Your task to perform on an android device: View the shopping cart on ebay.com. Search for jbl flip 4 on ebay.com, select the first entry, and add it to the cart. Image 0: 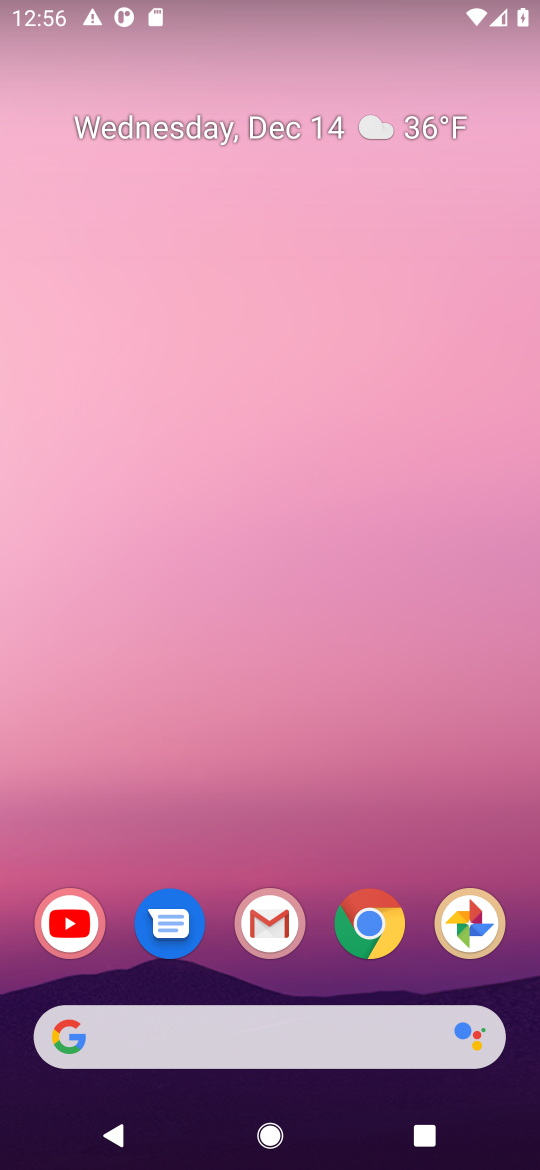
Step 0: click (346, 917)
Your task to perform on an android device: View the shopping cart on ebay.com. Search for jbl flip 4 on ebay.com, select the first entry, and add it to the cart. Image 1: 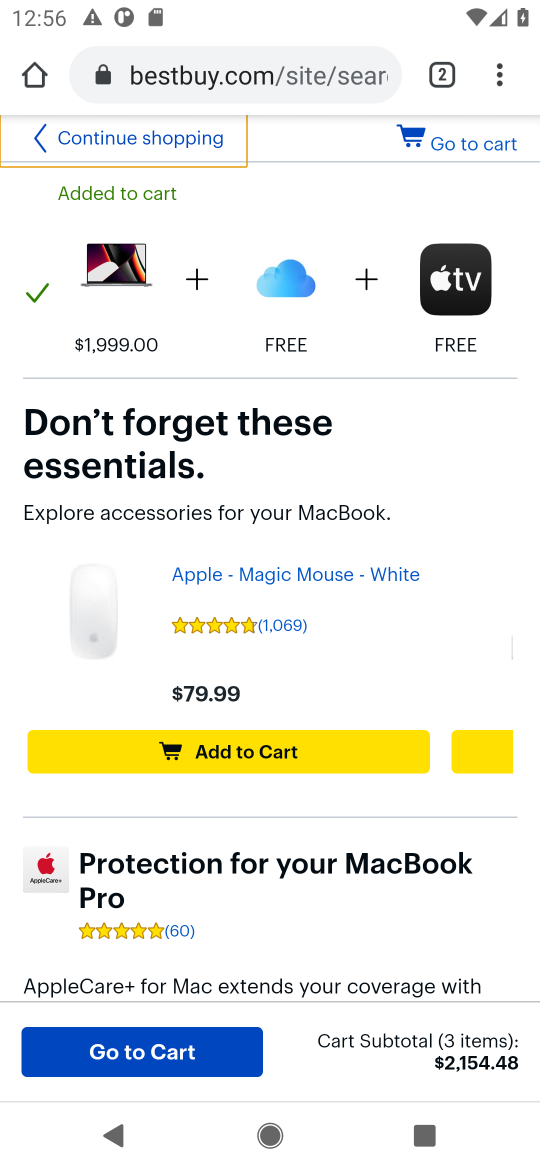
Step 1: click (198, 88)
Your task to perform on an android device: View the shopping cart on ebay.com. Search for jbl flip 4 on ebay.com, select the first entry, and add it to the cart. Image 2: 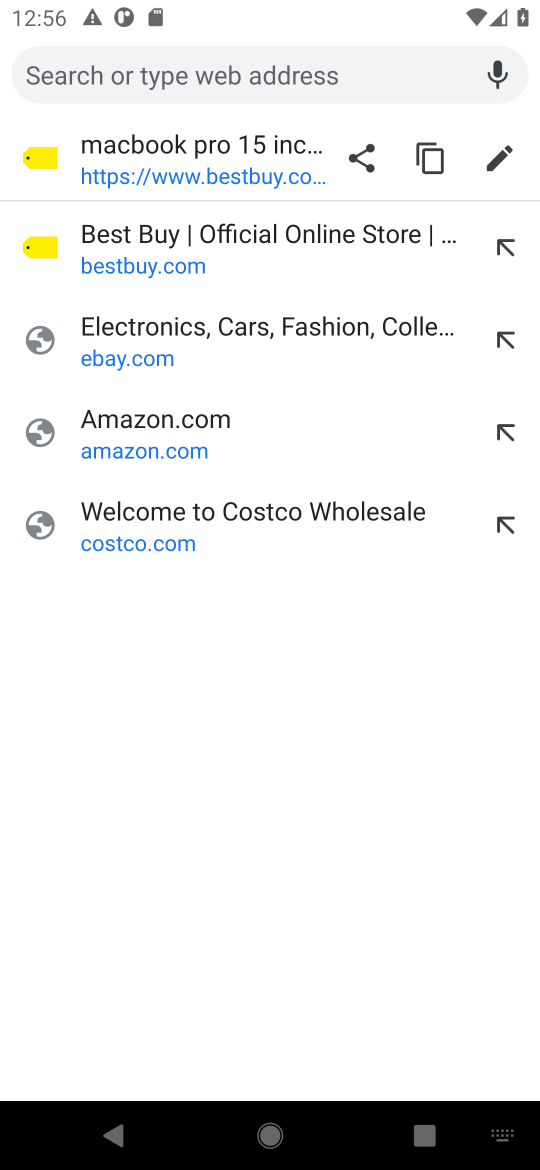
Step 2: click (128, 346)
Your task to perform on an android device: View the shopping cart on ebay.com. Search for jbl flip 4 on ebay.com, select the first entry, and add it to the cart. Image 3: 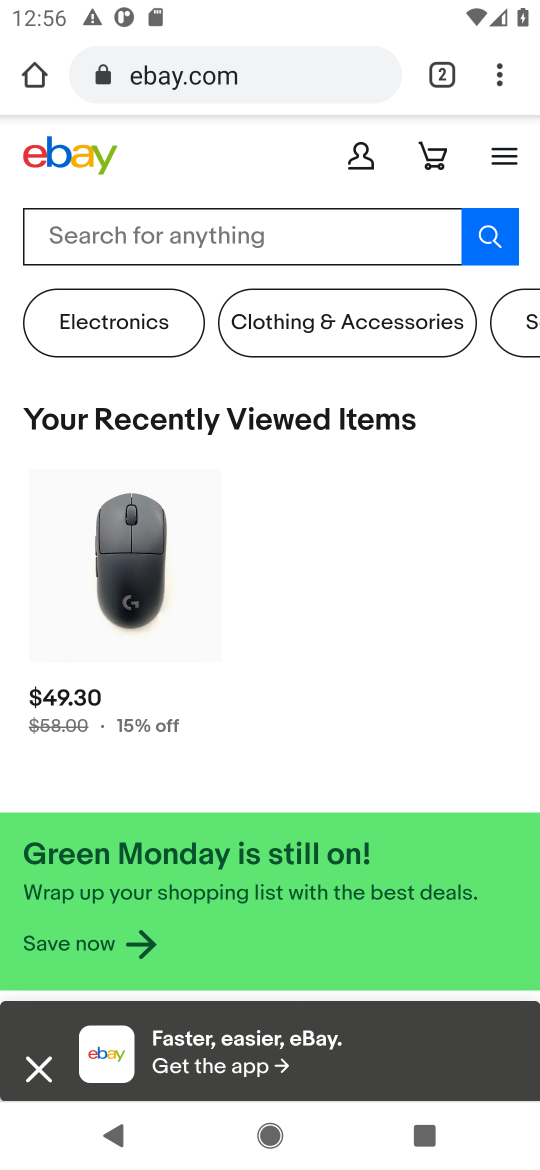
Step 3: click (167, 241)
Your task to perform on an android device: View the shopping cart on ebay.com. Search for jbl flip 4 on ebay.com, select the first entry, and add it to the cart. Image 4: 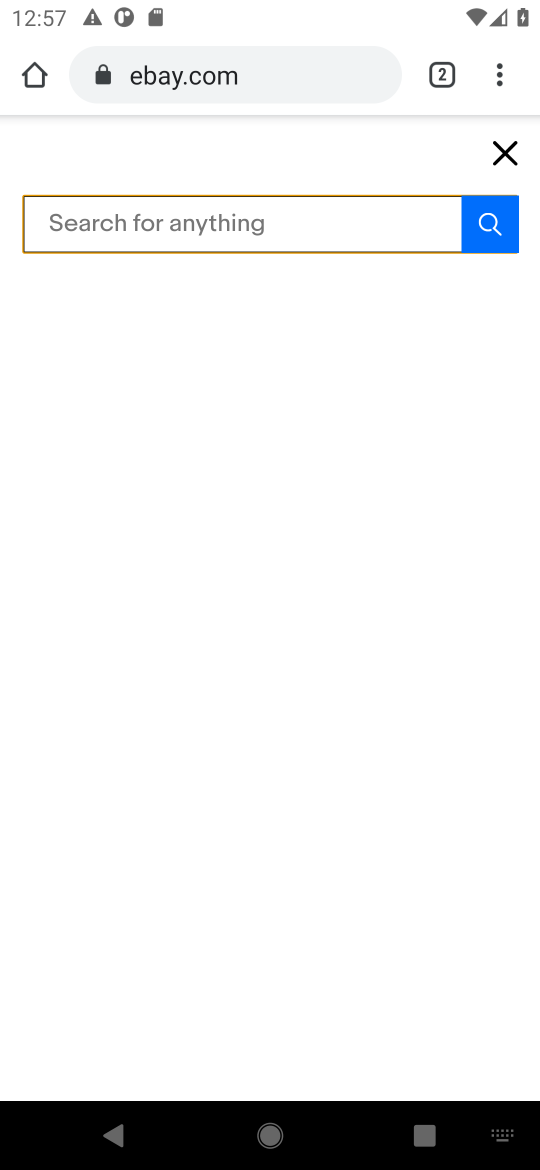
Step 4: type "jbl flip 4"
Your task to perform on an android device: View the shopping cart on ebay.com. Search for jbl flip 4 on ebay.com, select the first entry, and add it to the cart. Image 5: 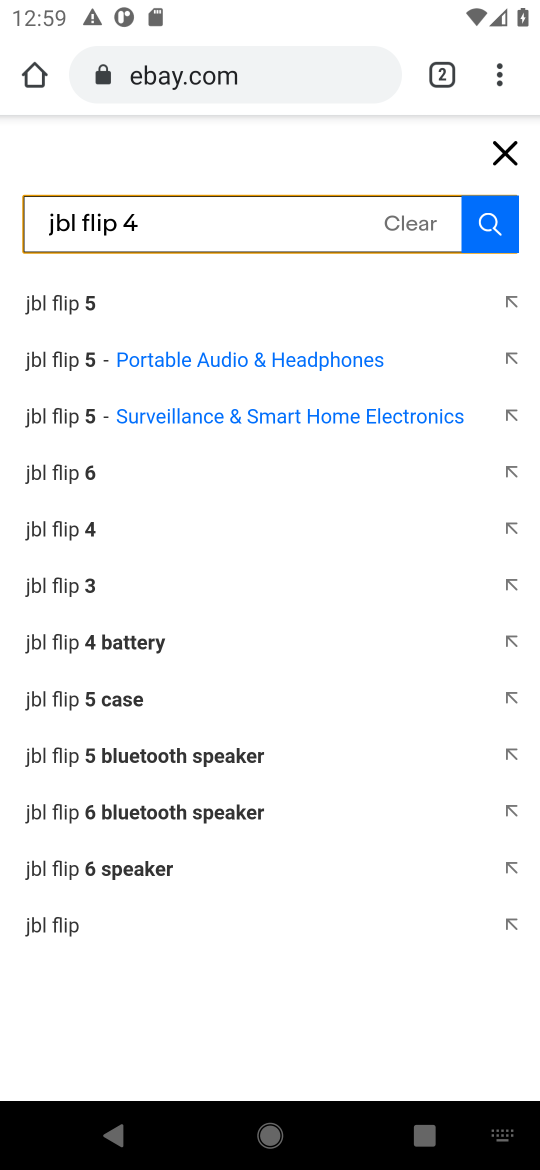
Step 5: click (474, 239)
Your task to perform on an android device: View the shopping cart on ebay.com. Search for jbl flip 4 on ebay.com, select the first entry, and add it to the cart. Image 6: 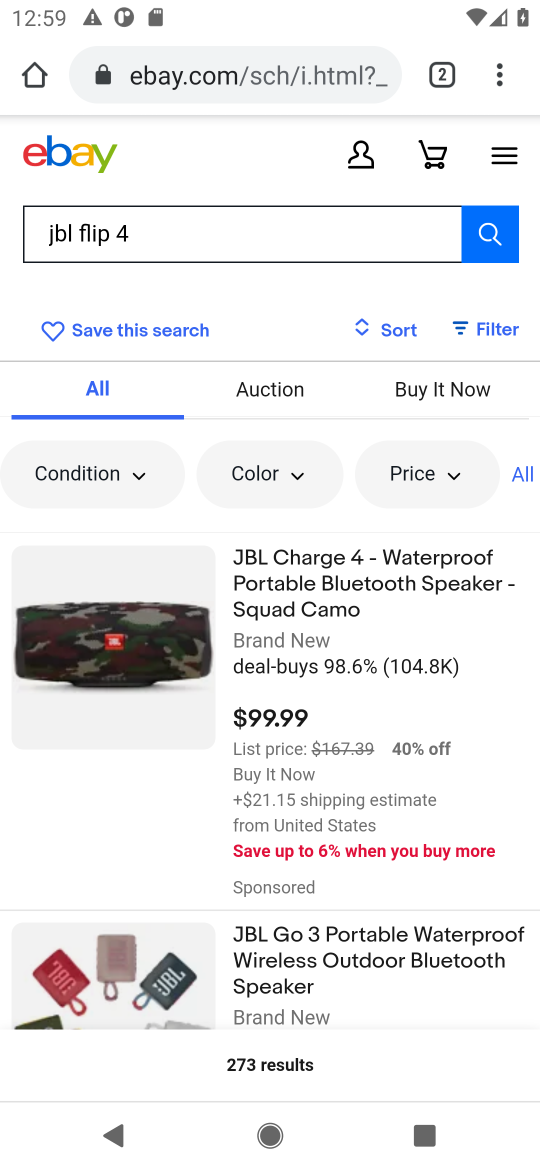
Step 6: click (418, 573)
Your task to perform on an android device: View the shopping cart on ebay.com. Search for jbl flip 4 on ebay.com, select the first entry, and add it to the cart. Image 7: 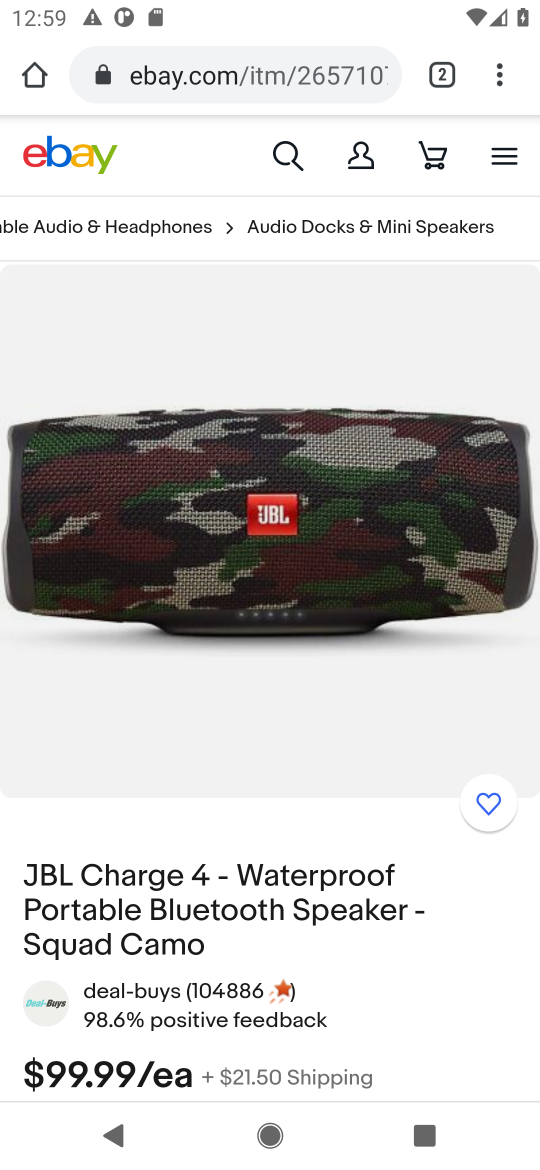
Step 7: drag from (385, 932) to (297, 367)
Your task to perform on an android device: View the shopping cart on ebay.com. Search for jbl flip 4 on ebay.com, select the first entry, and add it to the cart. Image 8: 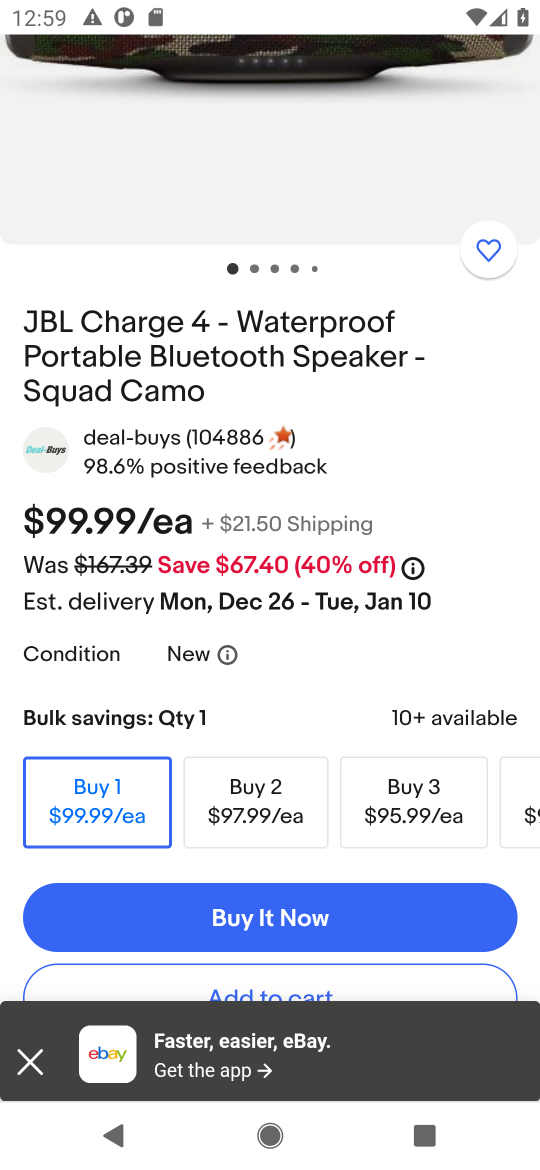
Step 8: click (334, 979)
Your task to perform on an android device: View the shopping cart on ebay.com. Search for jbl flip 4 on ebay.com, select the first entry, and add it to the cart. Image 9: 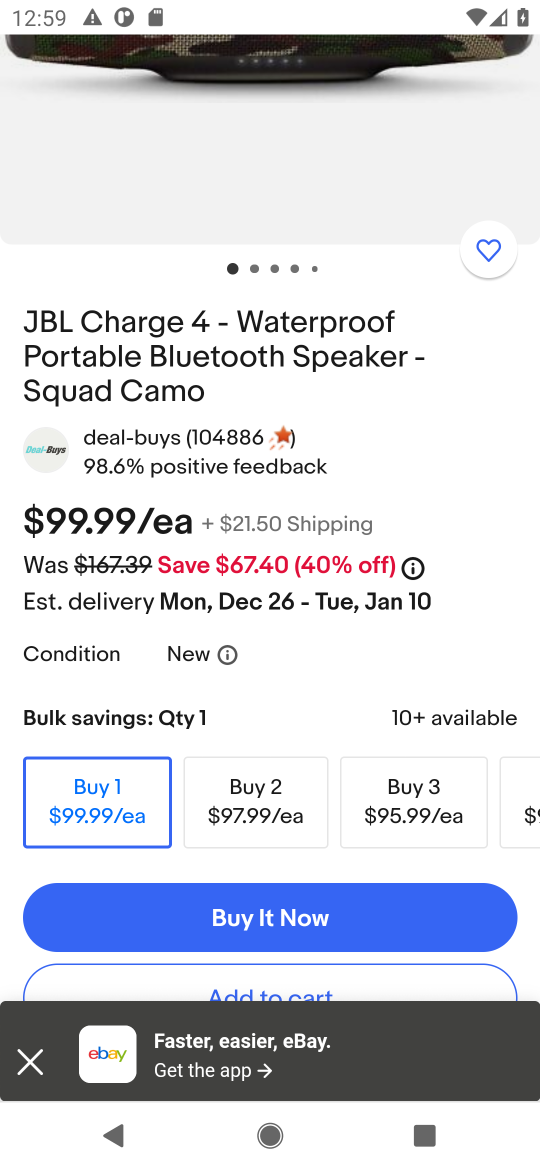
Step 9: task complete